Your task to perform on an android device: clear all cookies in the chrome app Image 0: 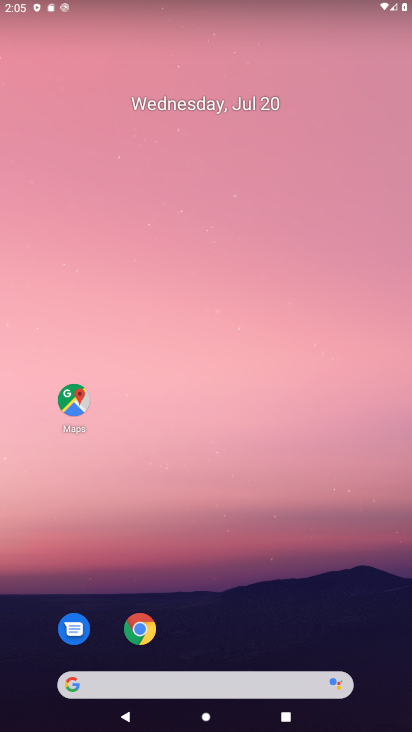
Step 0: click (134, 628)
Your task to perform on an android device: clear all cookies in the chrome app Image 1: 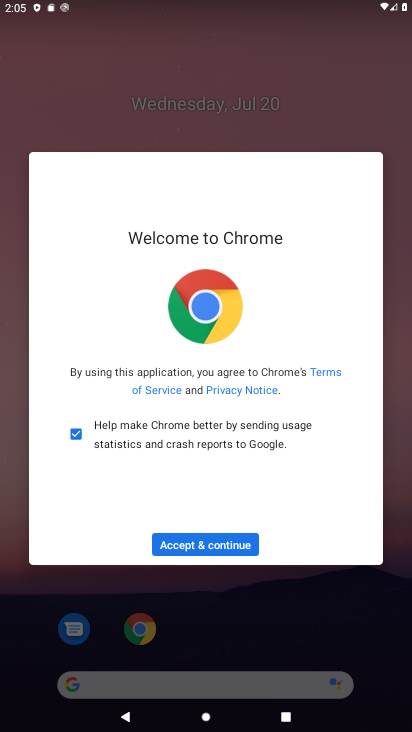
Step 1: click (192, 541)
Your task to perform on an android device: clear all cookies in the chrome app Image 2: 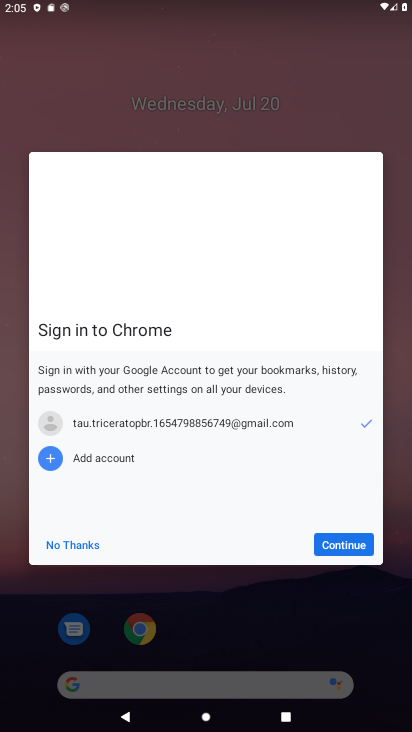
Step 2: click (328, 535)
Your task to perform on an android device: clear all cookies in the chrome app Image 3: 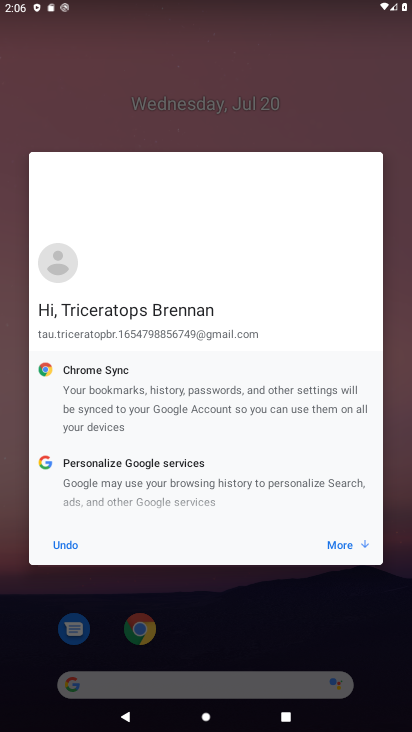
Step 3: click (338, 541)
Your task to perform on an android device: clear all cookies in the chrome app Image 4: 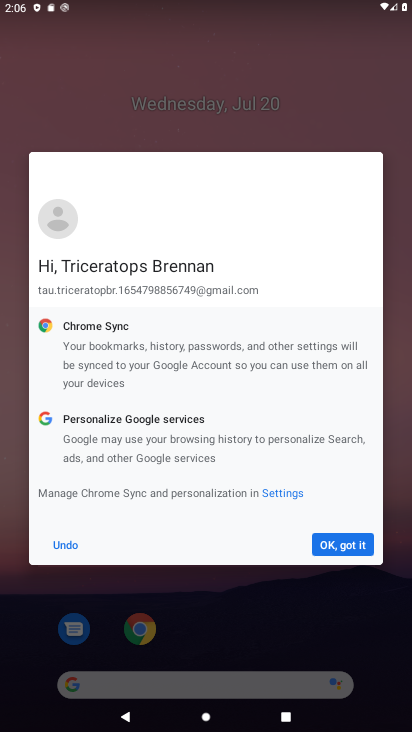
Step 4: click (328, 540)
Your task to perform on an android device: clear all cookies in the chrome app Image 5: 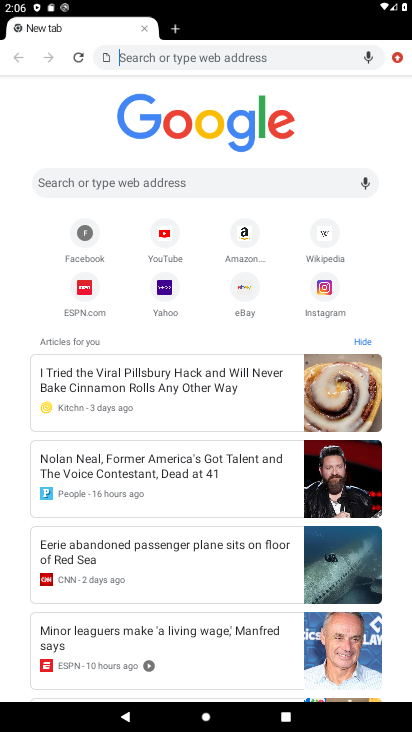
Step 5: drag from (399, 63) to (313, 294)
Your task to perform on an android device: clear all cookies in the chrome app Image 6: 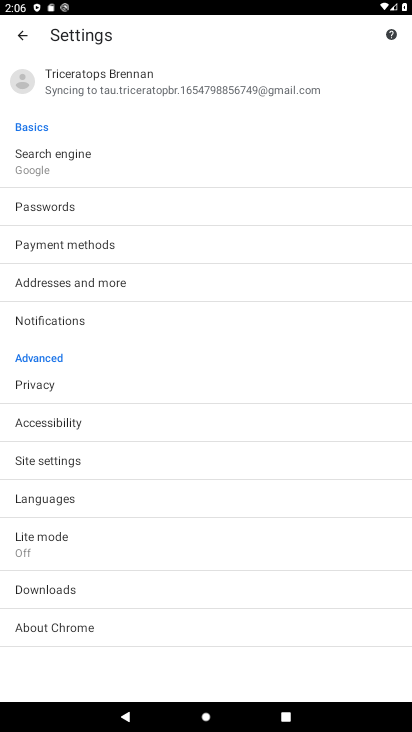
Step 6: drag from (102, 567) to (116, 256)
Your task to perform on an android device: clear all cookies in the chrome app Image 7: 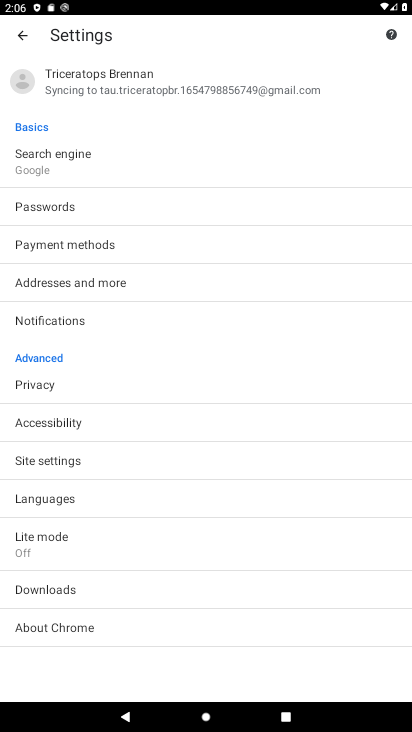
Step 7: click (68, 376)
Your task to perform on an android device: clear all cookies in the chrome app Image 8: 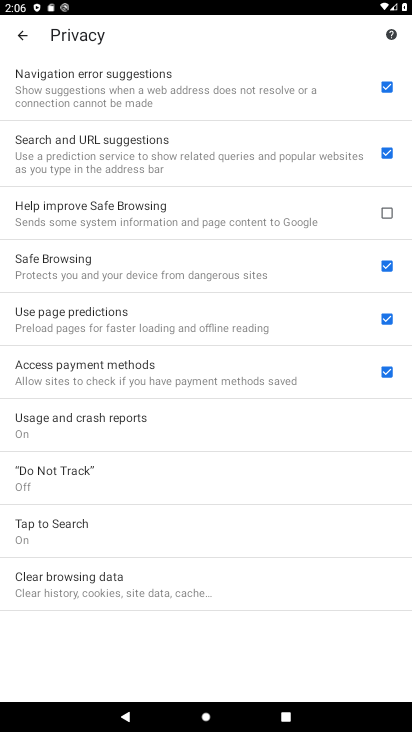
Step 8: drag from (109, 403) to (119, 240)
Your task to perform on an android device: clear all cookies in the chrome app Image 9: 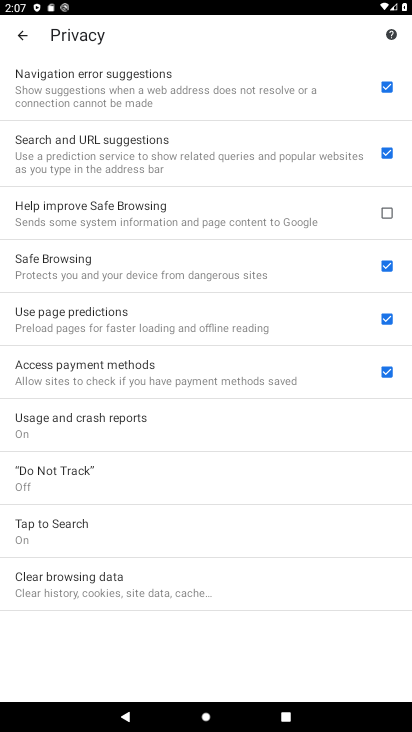
Step 9: click (149, 593)
Your task to perform on an android device: clear all cookies in the chrome app Image 10: 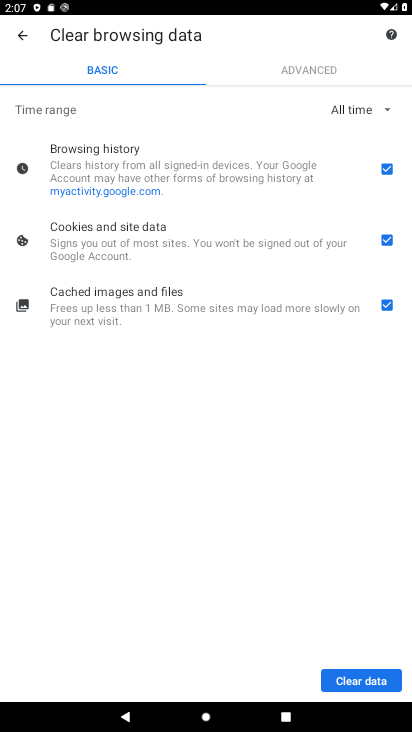
Step 10: click (390, 303)
Your task to perform on an android device: clear all cookies in the chrome app Image 11: 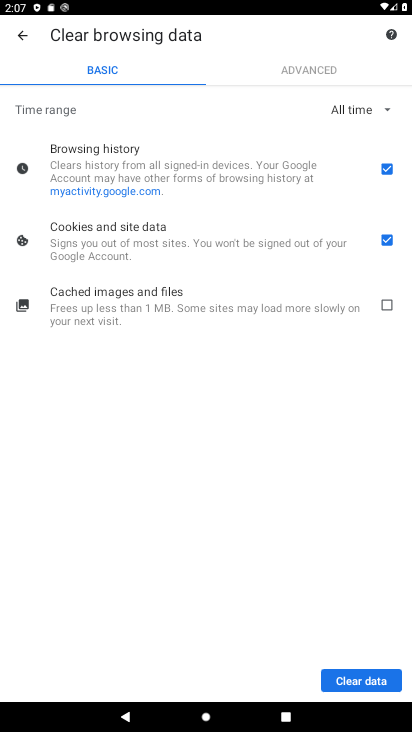
Step 11: click (387, 158)
Your task to perform on an android device: clear all cookies in the chrome app Image 12: 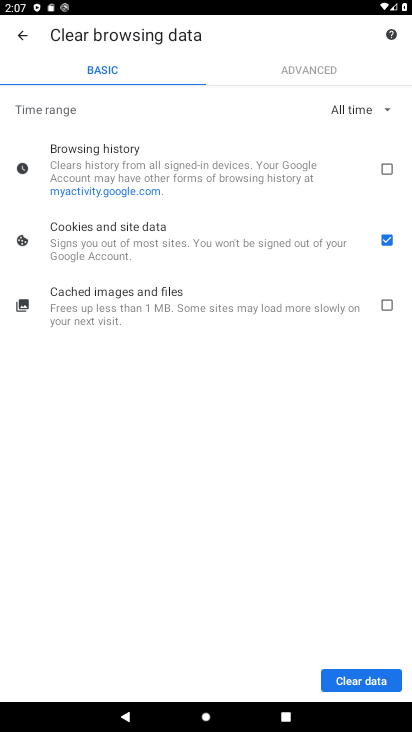
Step 12: click (374, 682)
Your task to perform on an android device: clear all cookies in the chrome app Image 13: 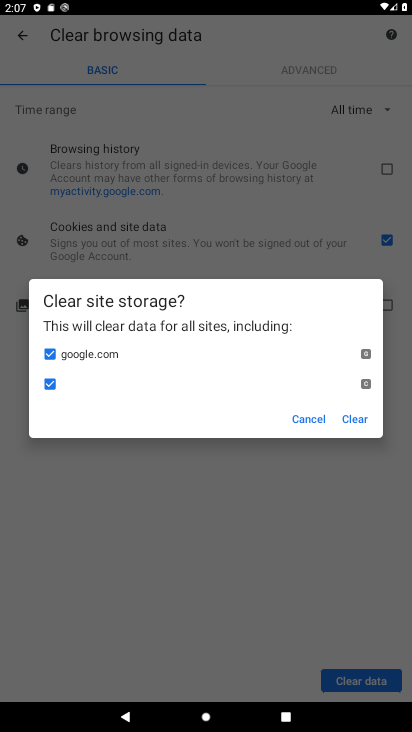
Step 13: click (349, 415)
Your task to perform on an android device: clear all cookies in the chrome app Image 14: 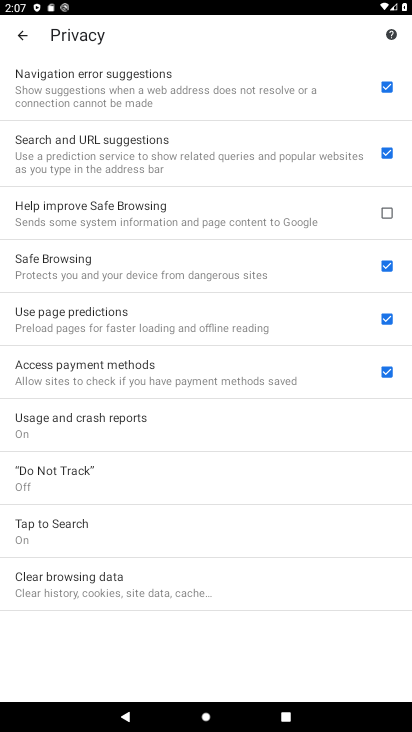
Step 14: task complete